Your task to perform on an android device: Open privacy settings Image 0: 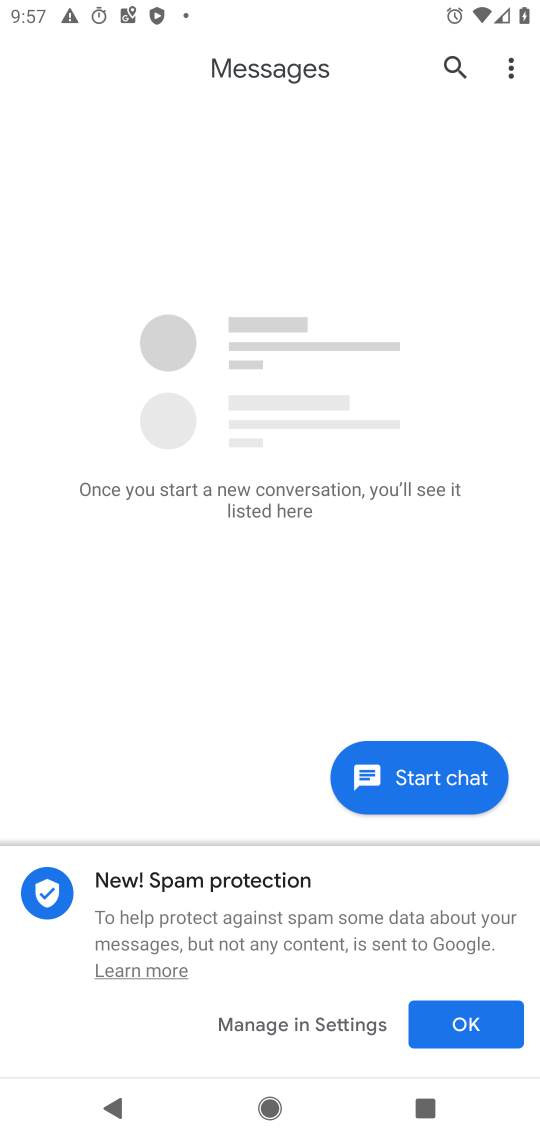
Step 0: press home button
Your task to perform on an android device: Open privacy settings Image 1: 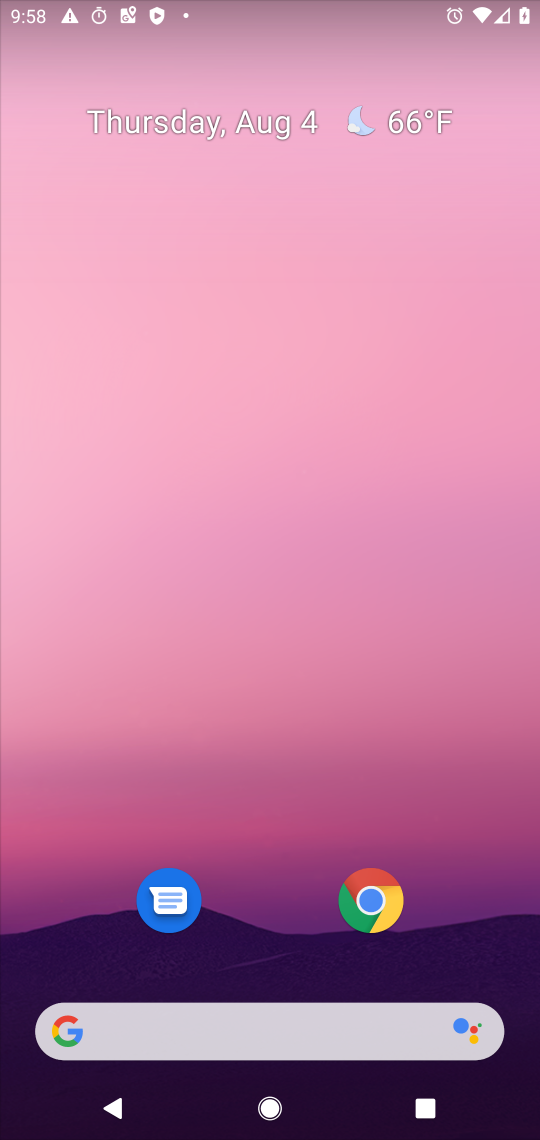
Step 1: drag from (208, 1032) to (204, 339)
Your task to perform on an android device: Open privacy settings Image 2: 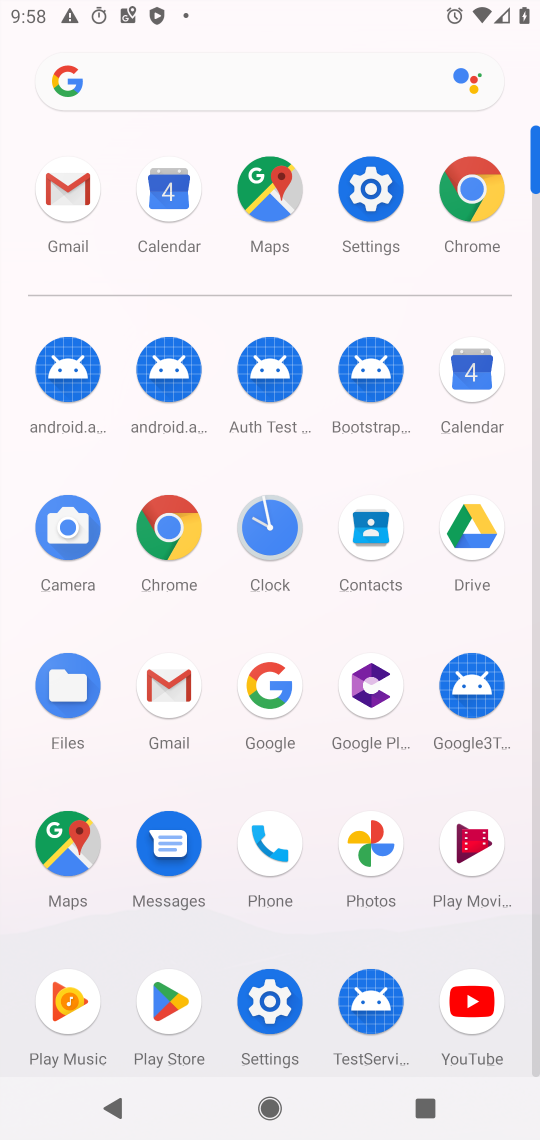
Step 2: click (371, 186)
Your task to perform on an android device: Open privacy settings Image 3: 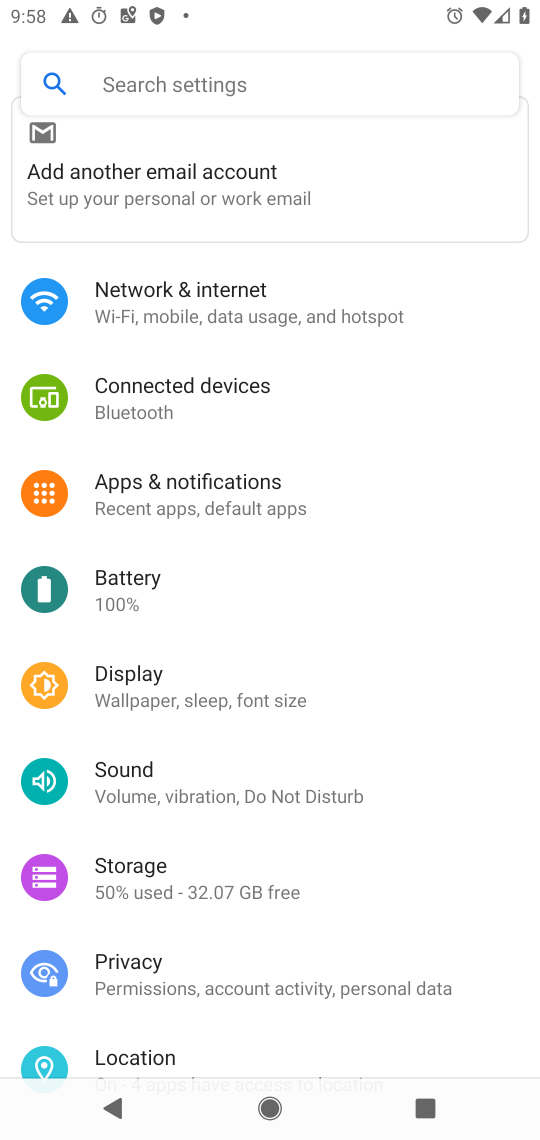
Step 3: click (134, 968)
Your task to perform on an android device: Open privacy settings Image 4: 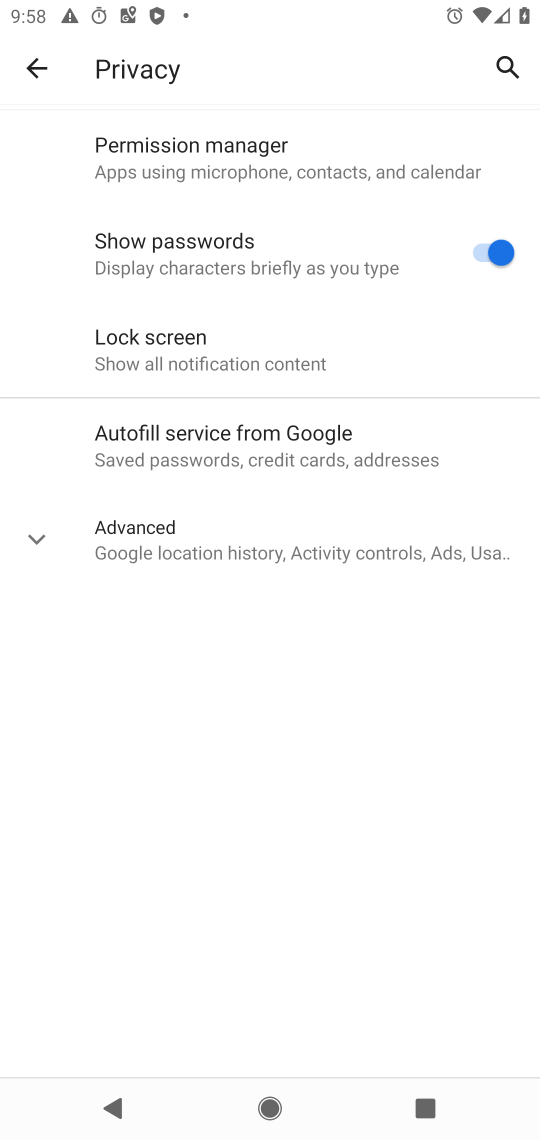
Step 4: task complete